Your task to perform on an android device: Turn off the flashlight Image 0: 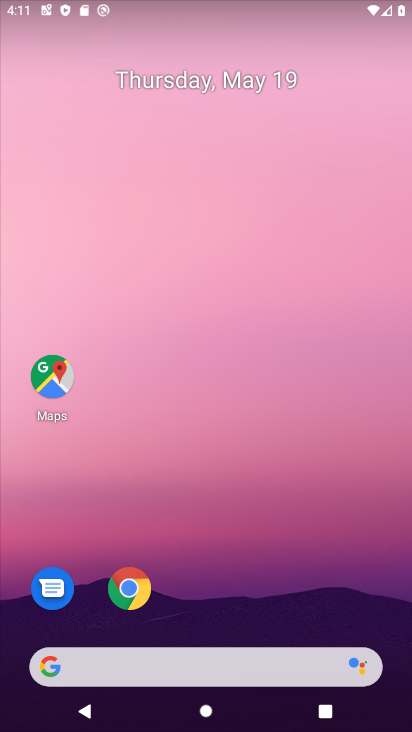
Step 0: drag from (227, 592) to (168, 106)
Your task to perform on an android device: Turn off the flashlight Image 1: 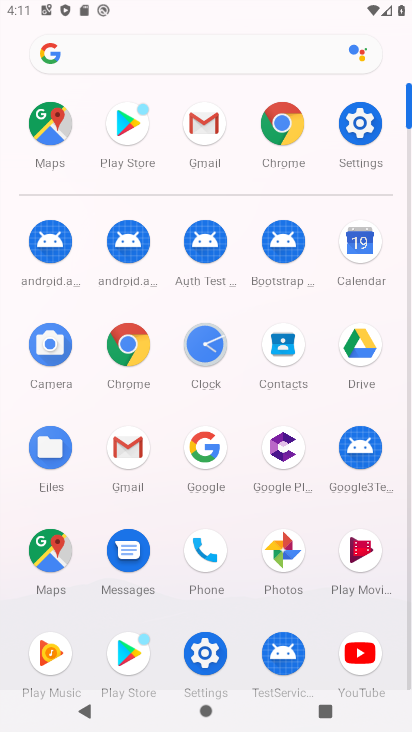
Step 1: click (363, 141)
Your task to perform on an android device: Turn off the flashlight Image 2: 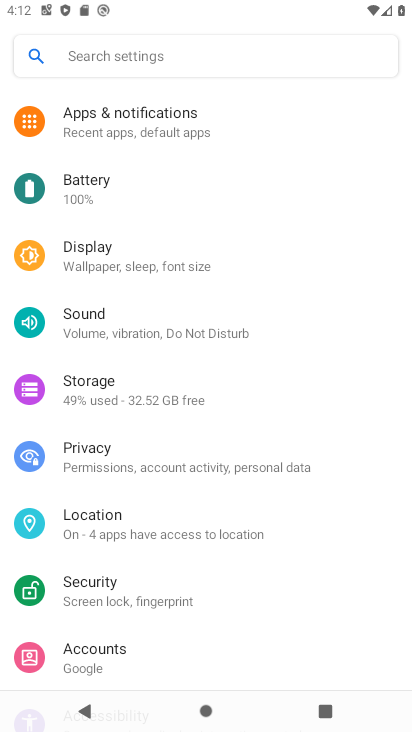
Step 2: task complete